Your task to perform on an android device: refresh tabs in the chrome app Image 0: 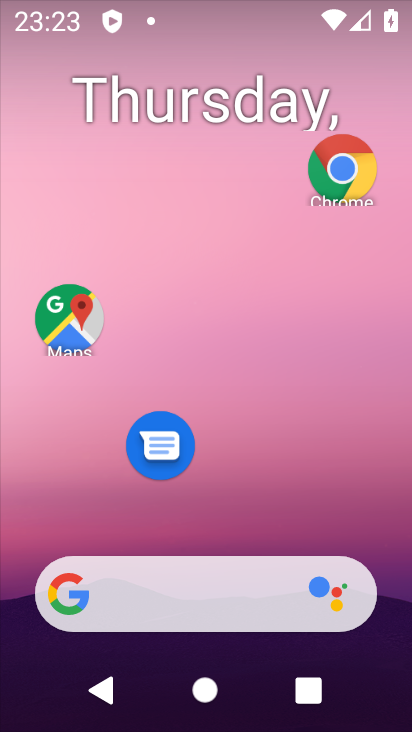
Step 0: click (351, 164)
Your task to perform on an android device: refresh tabs in the chrome app Image 1: 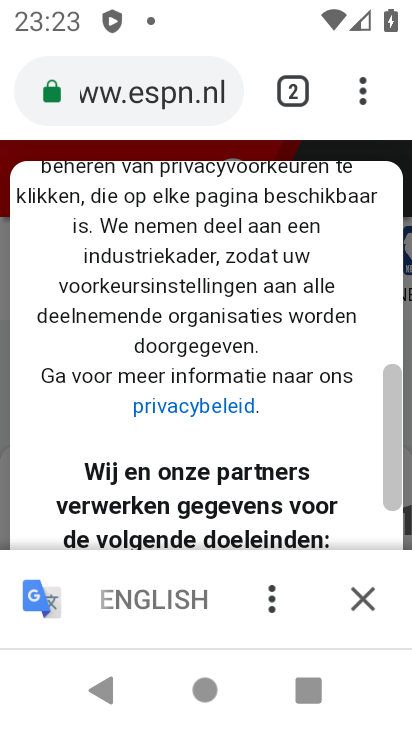
Step 1: press home button
Your task to perform on an android device: refresh tabs in the chrome app Image 2: 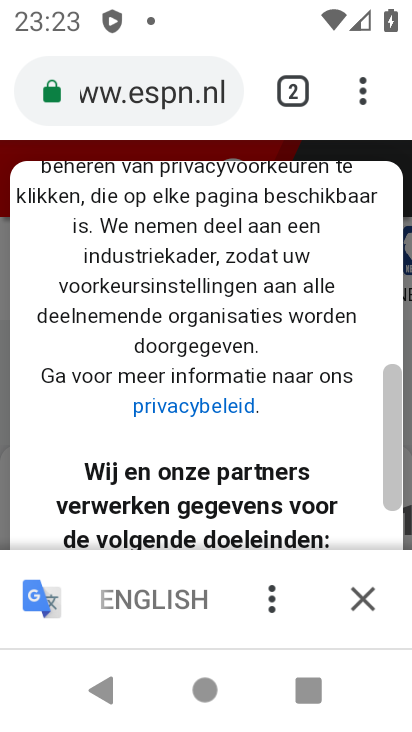
Step 2: drag from (180, 543) to (326, 65)
Your task to perform on an android device: refresh tabs in the chrome app Image 3: 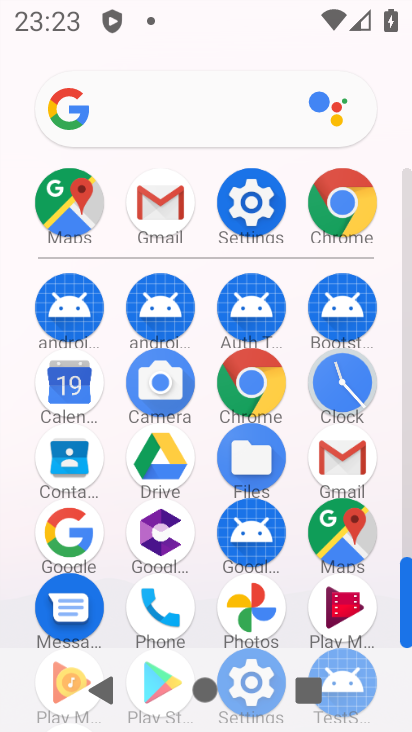
Step 3: click (160, 101)
Your task to perform on an android device: refresh tabs in the chrome app Image 4: 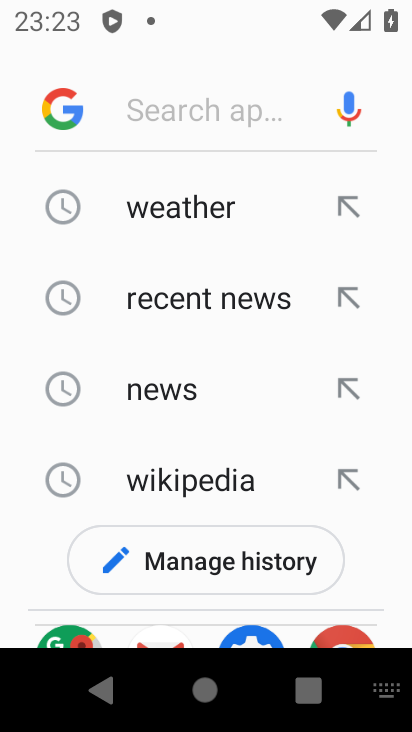
Step 4: press back button
Your task to perform on an android device: refresh tabs in the chrome app Image 5: 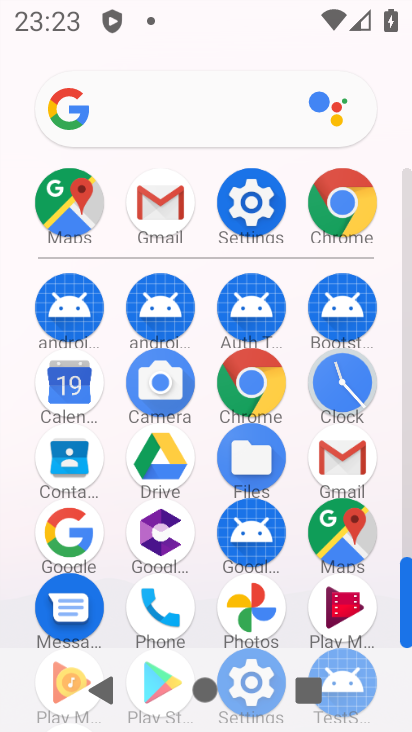
Step 5: click (349, 204)
Your task to perform on an android device: refresh tabs in the chrome app Image 6: 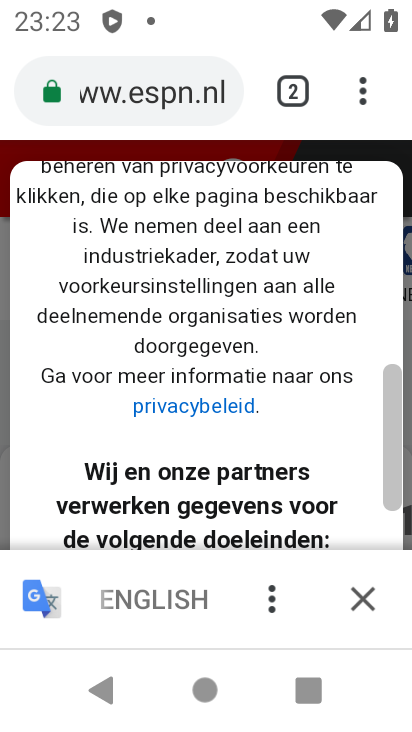
Step 6: click (363, 109)
Your task to perform on an android device: refresh tabs in the chrome app Image 7: 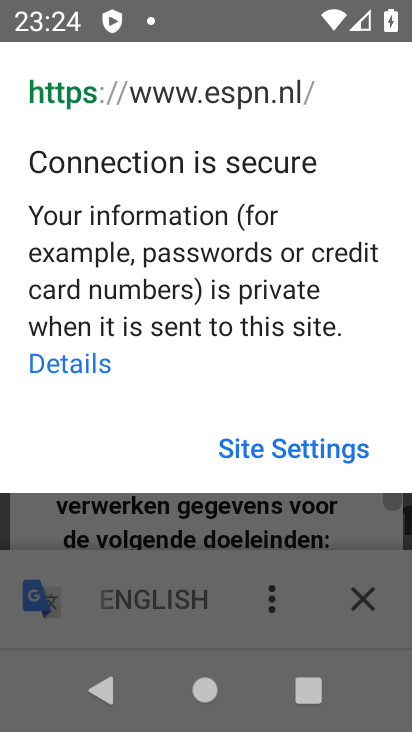
Step 7: click (165, 525)
Your task to perform on an android device: refresh tabs in the chrome app Image 8: 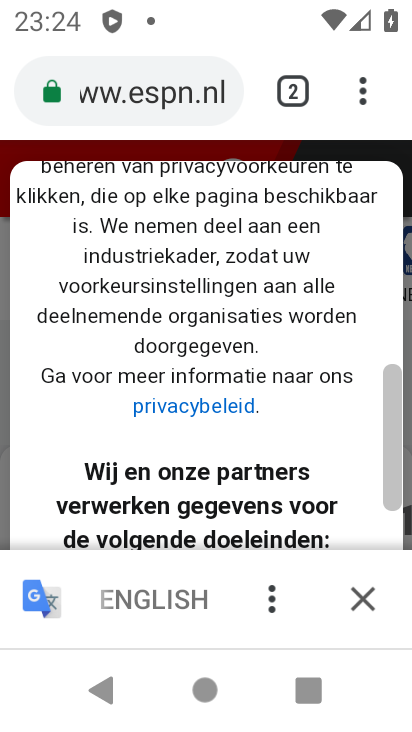
Step 8: click (354, 110)
Your task to perform on an android device: refresh tabs in the chrome app Image 9: 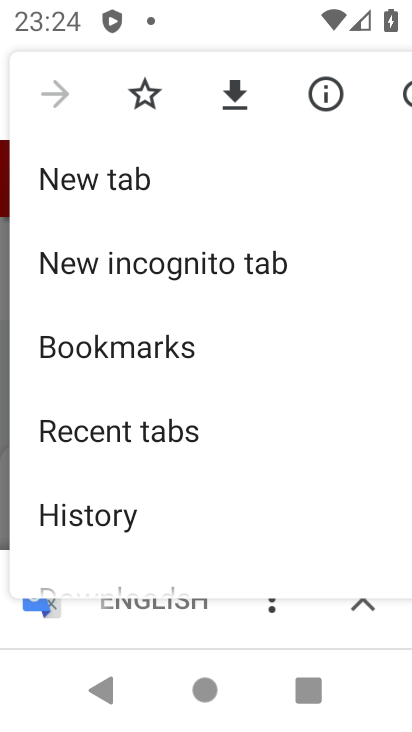
Step 9: click (400, 92)
Your task to perform on an android device: refresh tabs in the chrome app Image 10: 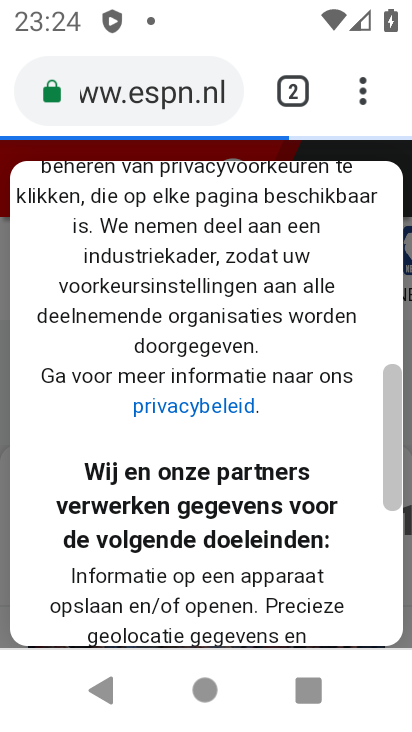
Step 10: task complete